Your task to perform on an android device: Open Reddit.com Image 0: 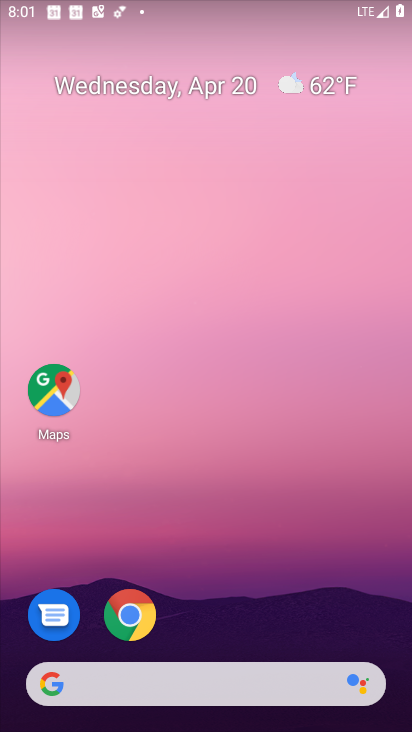
Step 0: click (128, 624)
Your task to perform on an android device: Open Reddit.com Image 1: 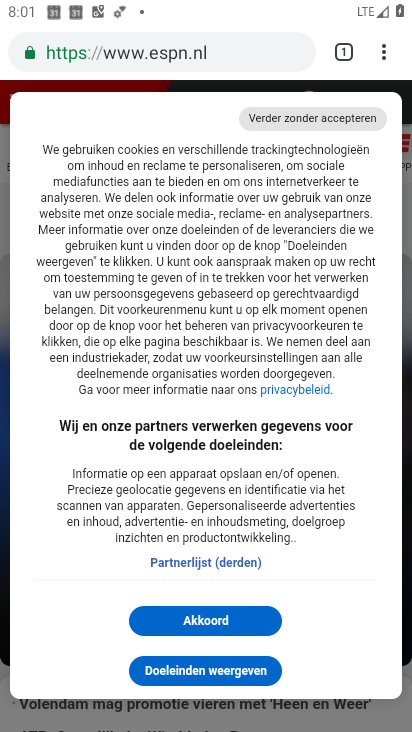
Step 1: click (156, 47)
Your task to perform on an android device: Open Reddit.com Image 2: 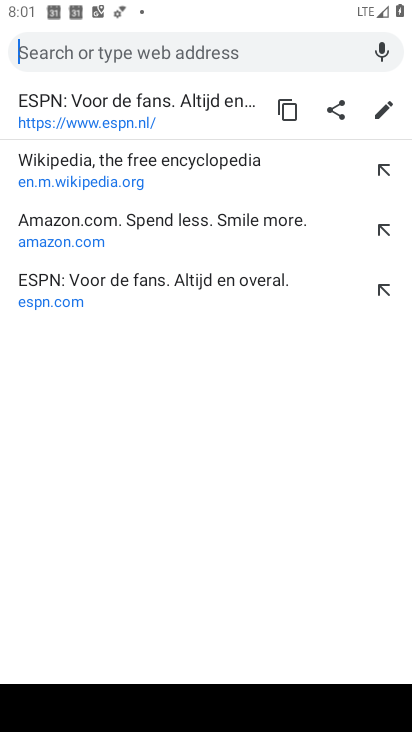
Step 2: type "reddit.com"
Your task to perform on an android device: Open Reddit.com Image 3: 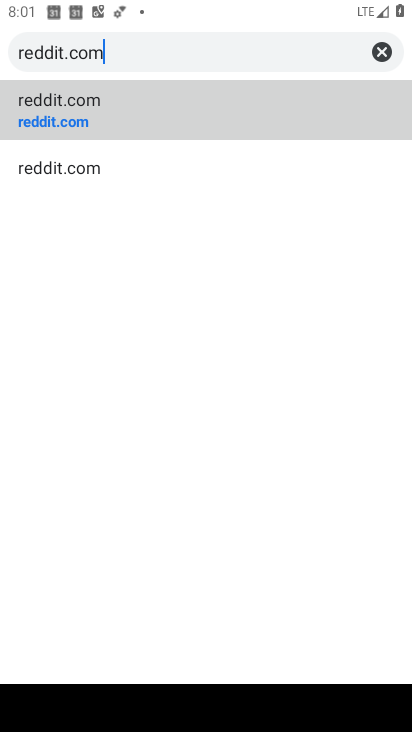
Step 3: click (108, 99)
Your task to perform on an android device: Open Reddit.com Image 4: 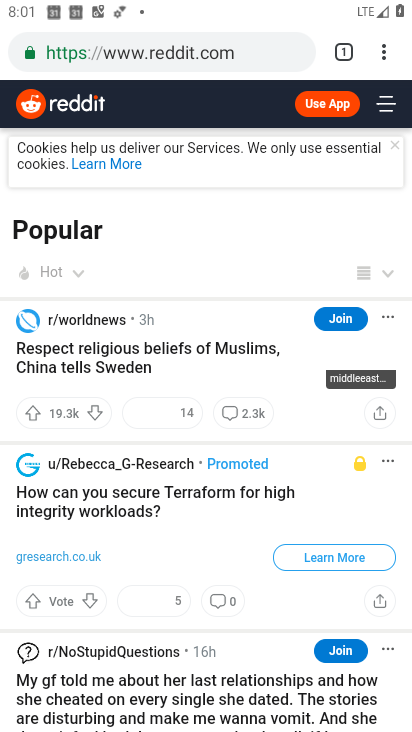
Step 4: task complete